Your task to perform on an android device: uninstall "Contacts" Image 0: 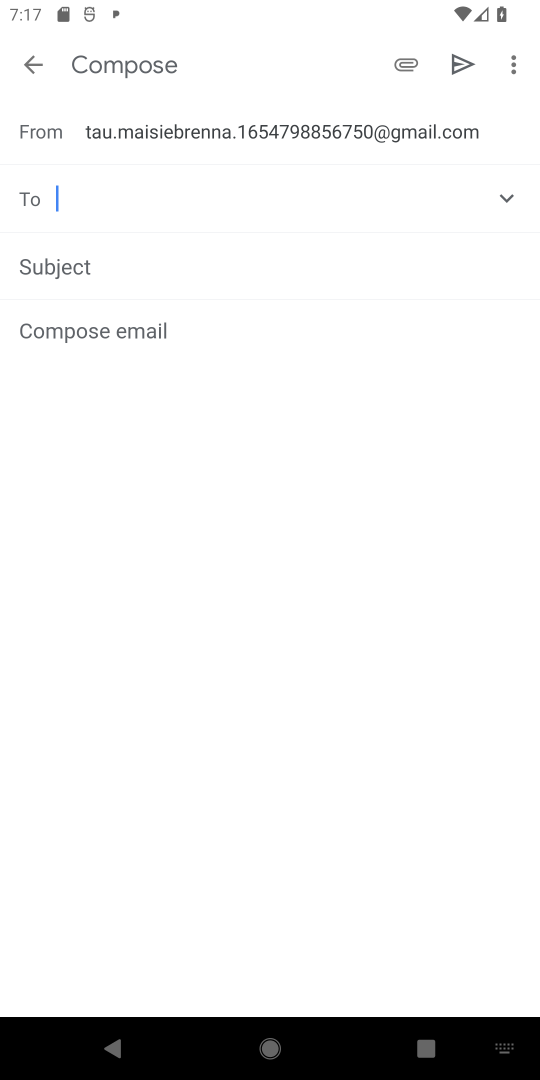
Step 0: press home button
Your task to perform on an android device: uninstall "Contacts" Image 1: 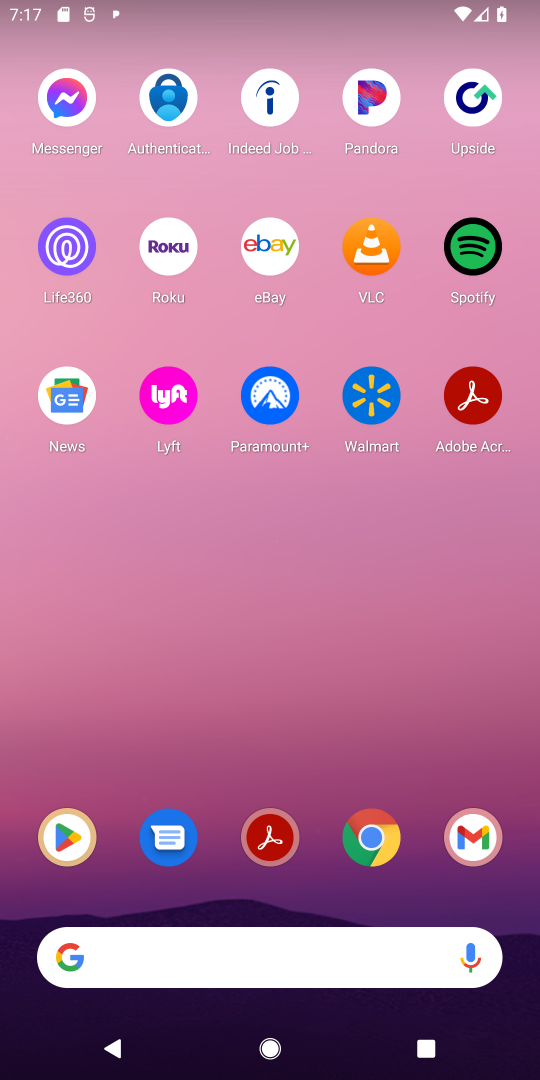
Step 1: click (73, 838)
Your task to perform on an android device: uninstall "Contacts" Image 2: 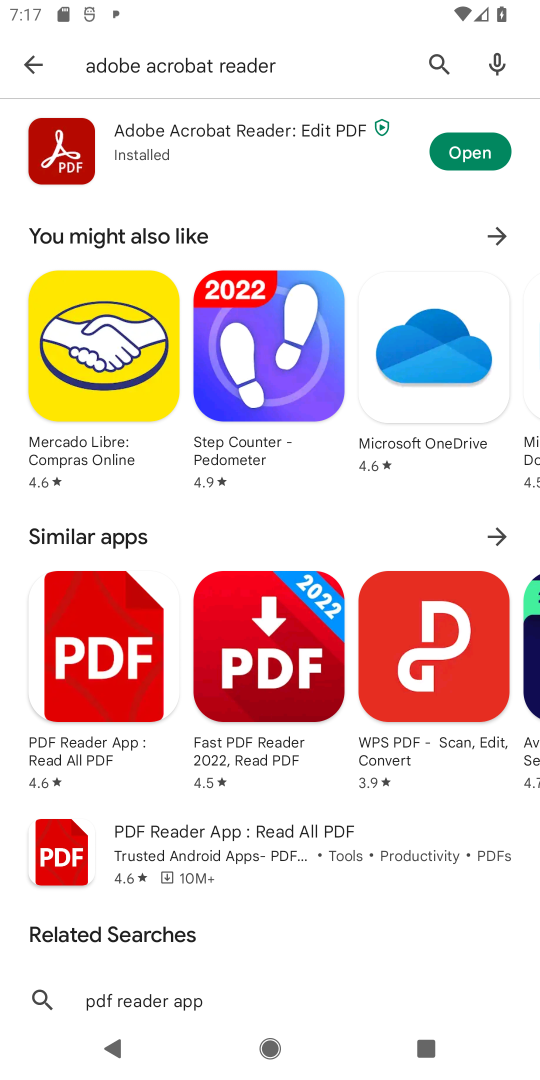
Step 2: click (436, 57)
Your task to perform on an android device: uninstall "Contacts" Image 3: 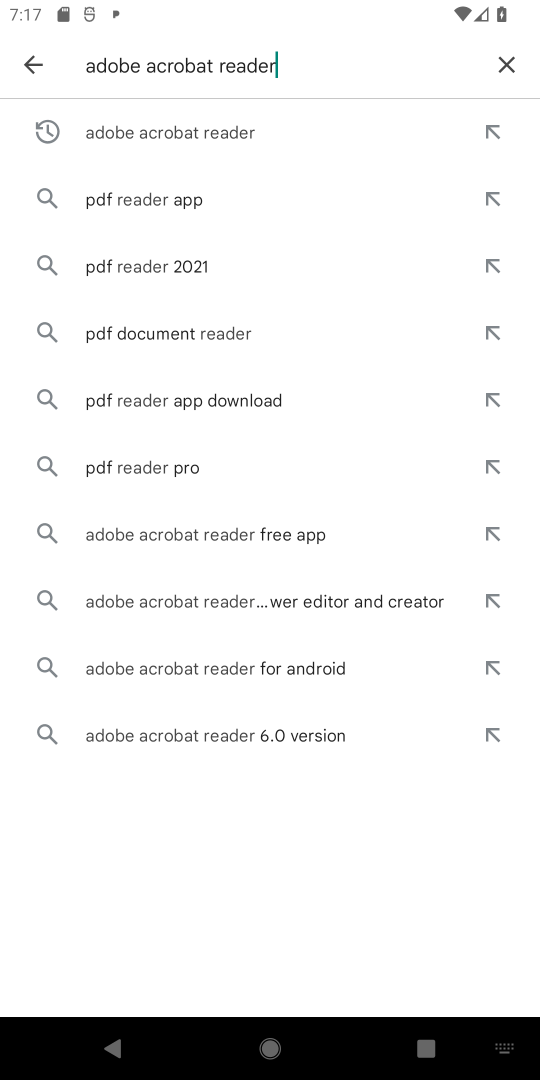
Step 3: click (513, 63)
Your task to perform on an android device: uninstall "Contacts" Image 4: 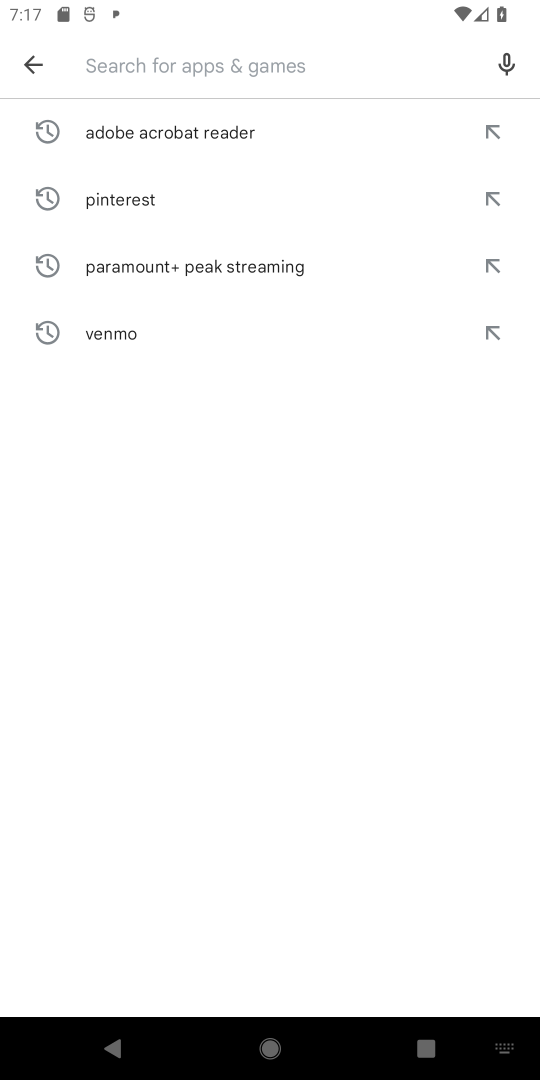
Step 4: type "Contacts"
Your task to perform on an android device: uninstall "Contacts" Image 5: 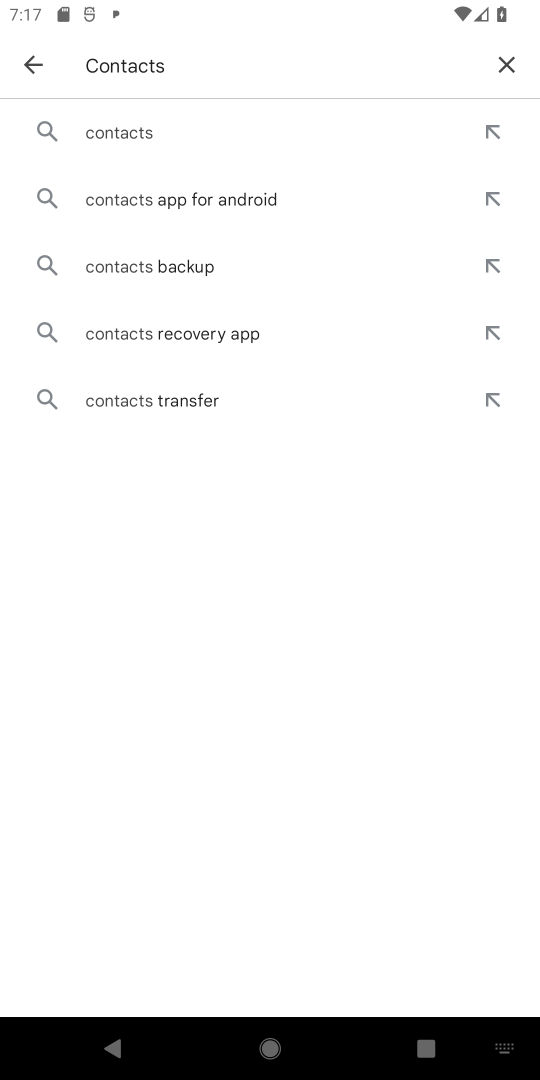
Step 5: click (127, 136)
Your task to perform on an android device: uninstall "Contacts" Image 6: 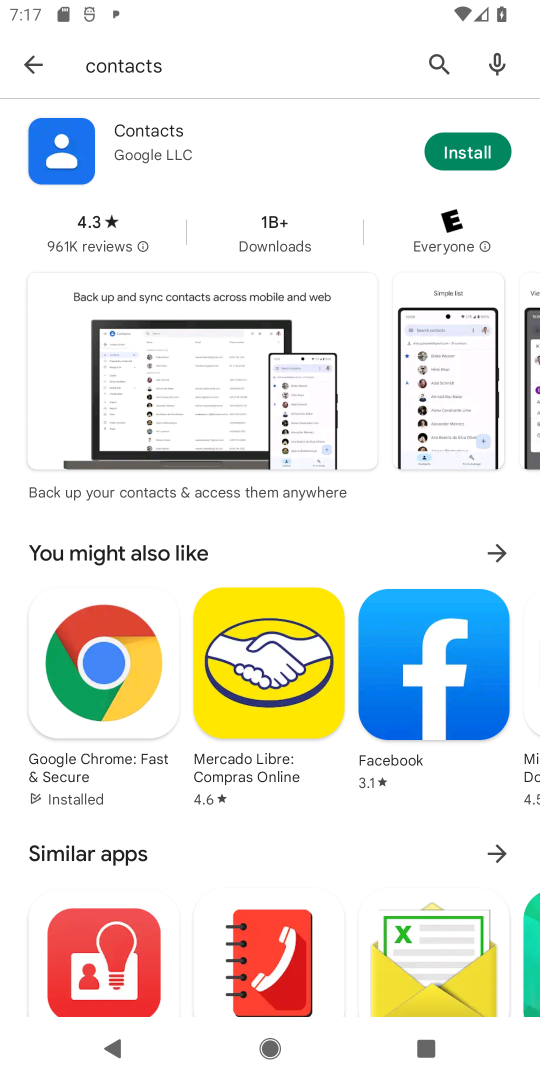
Step 6: task complete